Your task to perform on an android device: turn on location history Image 0: 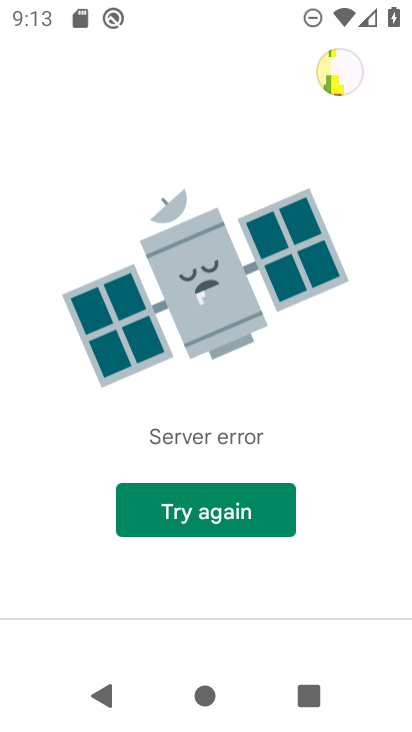
Step 0: press home button
Your task to perform on an android device: turn on location history Image 1: 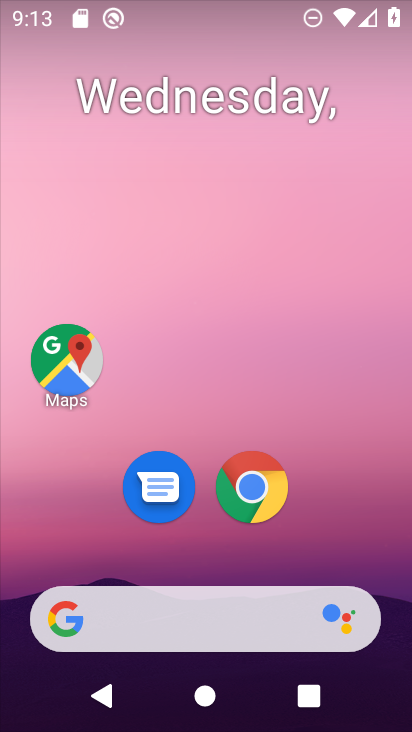
Step 1: drag from (221, 565) to (159, 25)
Your task to perform on an android device: turn on location history Image 2: 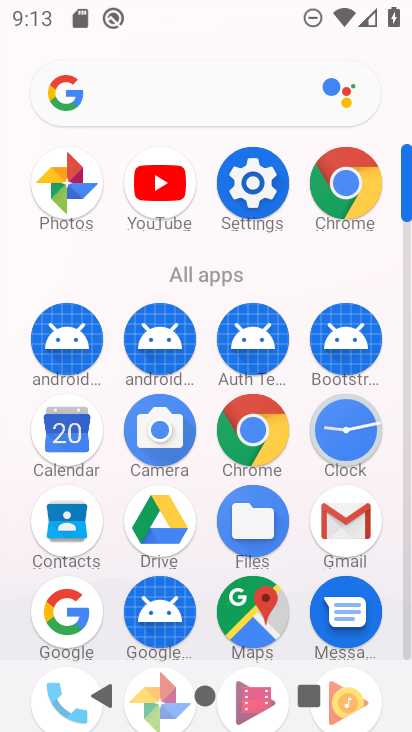
Step 2: click (243, 193)
Your task to perform on an android device: turn on location history Image 3: 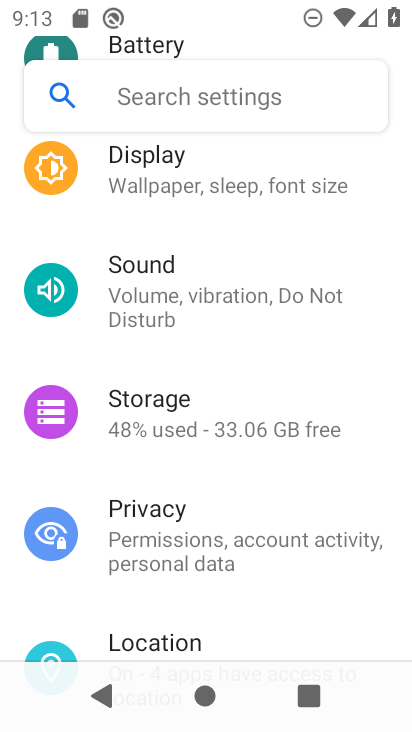
Step 3: click (134, 628)
Your task to perform on an android device: turn on location history Image 4: 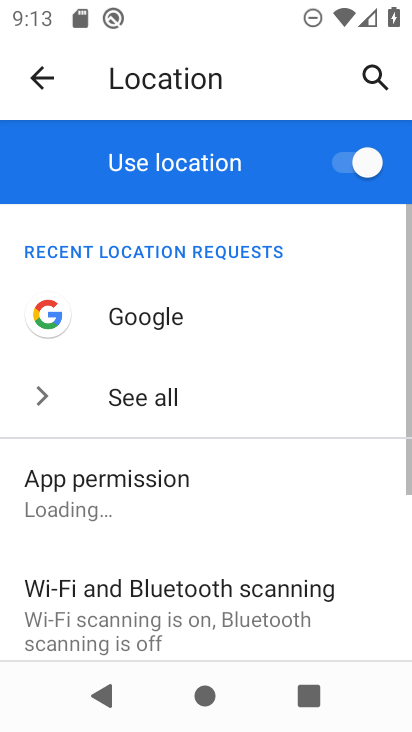
Step 4: drag from (152, 589) to (84, 48)
Your task to perform on an android device: turn on location history Image 5: 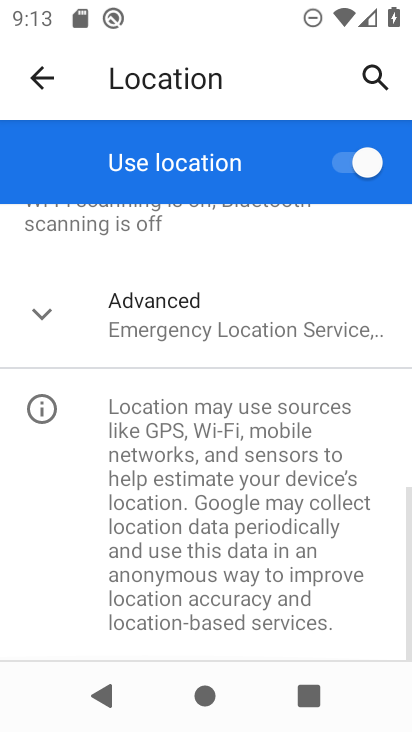
Step 5: click (110, 297)
Your task to perform on an android device: turn on location history Image 6: 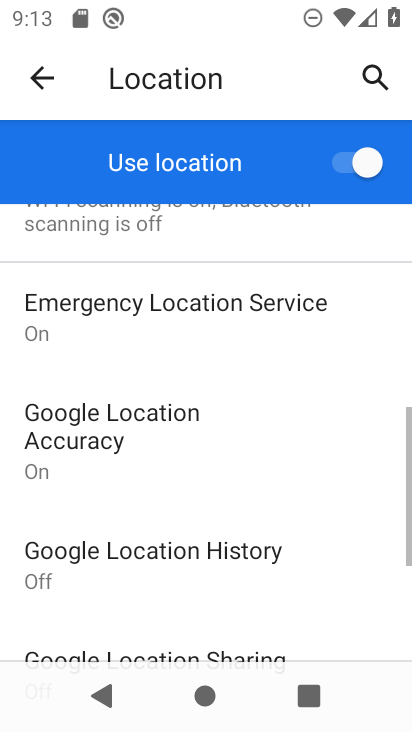
Step 6: click (140, 546)
Your task to perform on an android device: turn on location history Image 7: 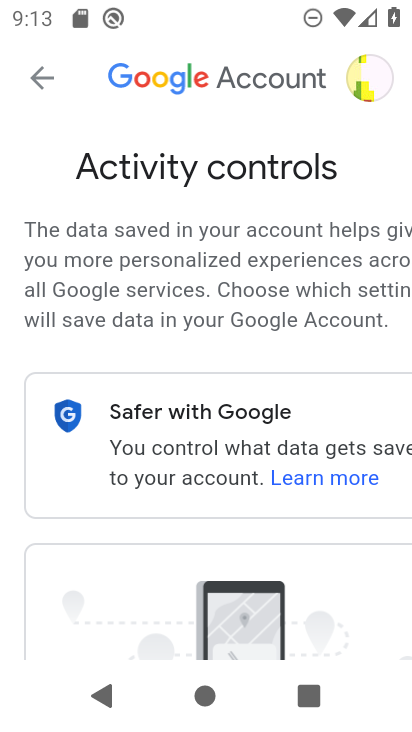
Step 7: drag from (197, 542) to (160, 48)
Your task to perform on an android device: turn on location history Image 8: 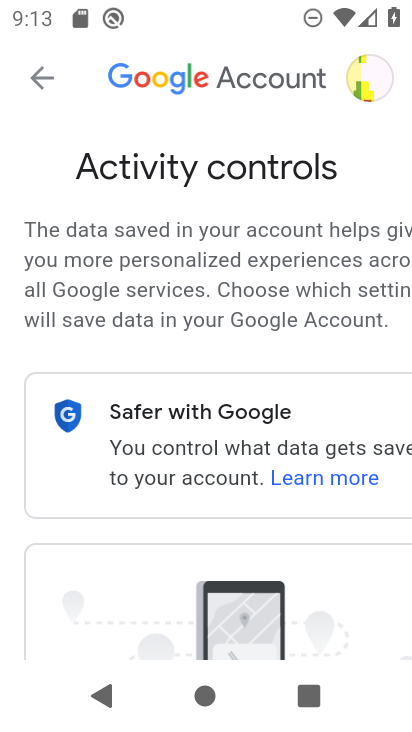
Step 8: drag from (291, 551) to (195, 130)
Your task to perform on an android device: turn on location history Image 9: 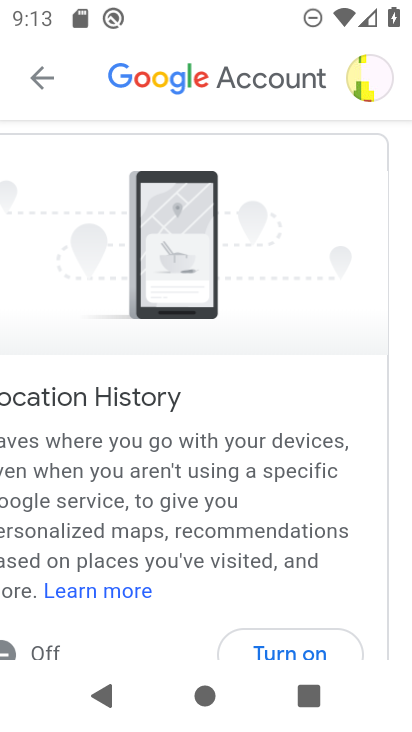
Step 9: click (299, 651)
Your task to perform on an android device: turn on location history Image 10: 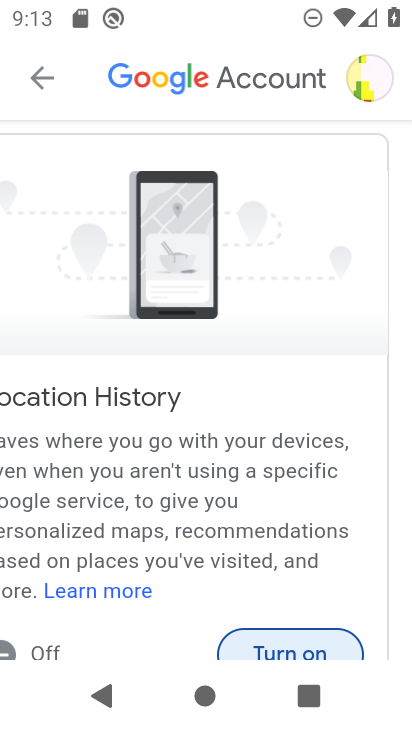
Step 10: click (293, 634)
Your task to perform on an android device: turn on location history Image 11: 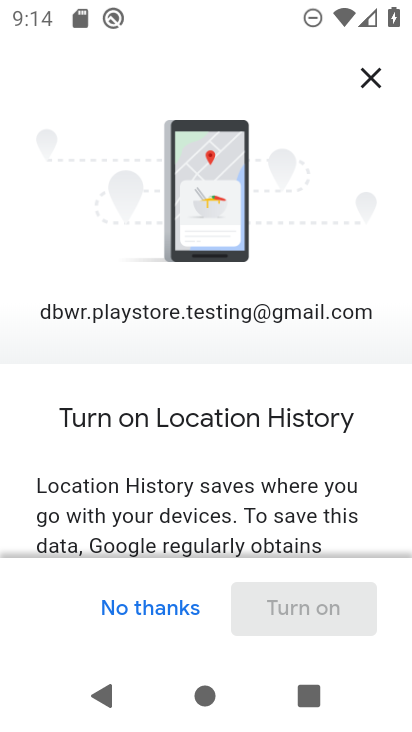
Step 11: drag from (286, 518) to (196, 10)
Your task to perform on an android device: turn on location history Image 12: 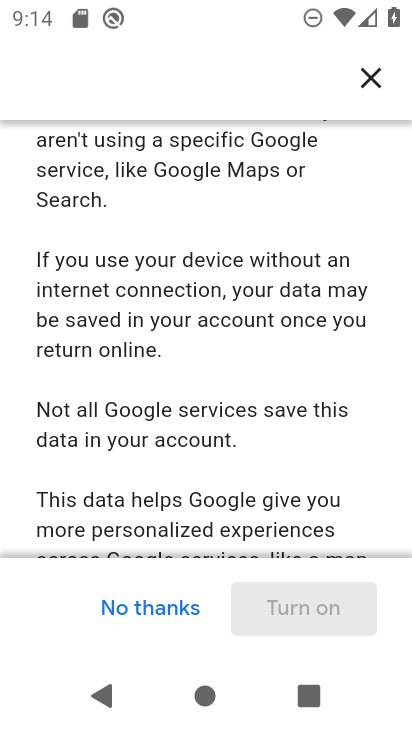
Step 12: drag from (222, 414) to (191, 35)
Your task to perform on an android device: turn on location history Image 13: 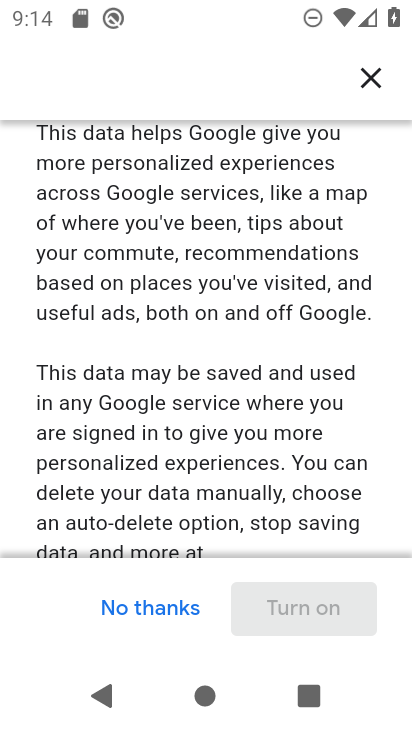
Step 13: drag from (222, 467) to (198, 15)
Your task to perform on an android device: turn on location history Image 14: 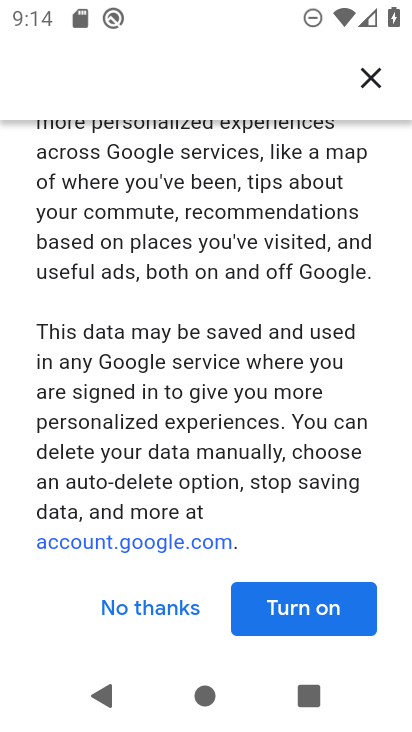
Step 14: click (295, 608)
Your task to perform on an android device: turn on location history Image 15: 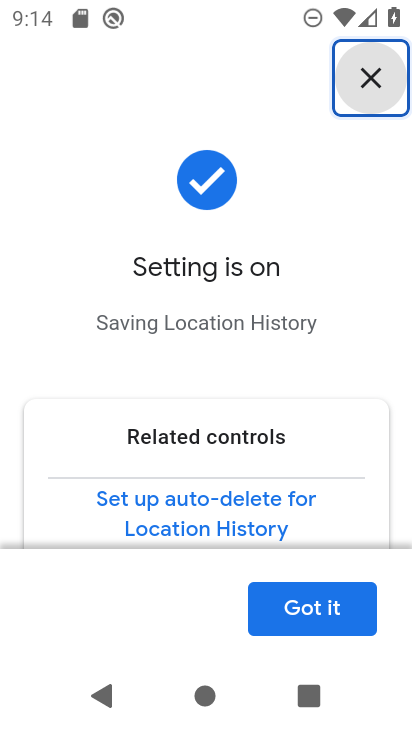
Step 15: click (294, 606)
Your task to perform on an android device: turn on location history Image 16: 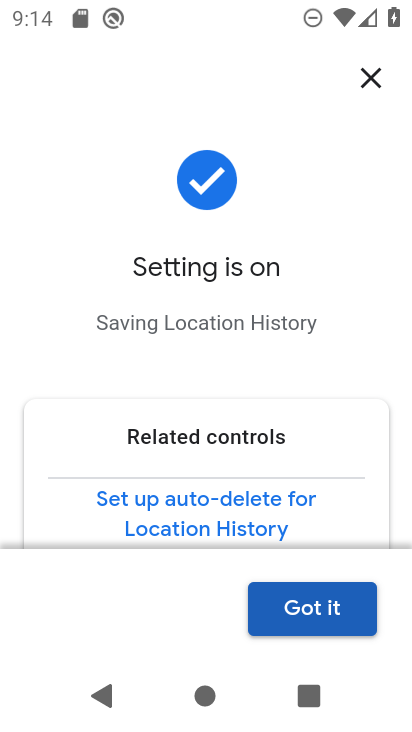
Step 16: click (295, 609)
Your task to perform on an android device: turn on location history Image 17: 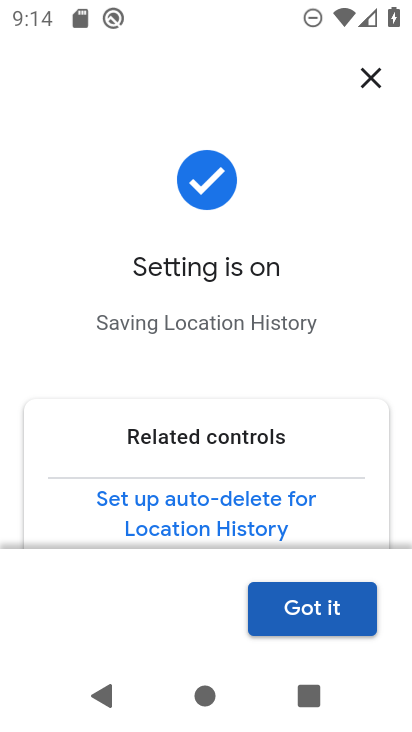
Step 17: click (292, 610)
Your task to perform on an android device: turn on location history Image 18: 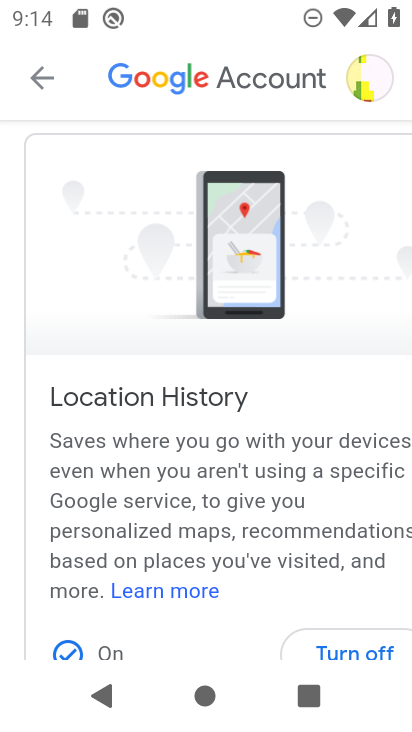
Step 18: task complete